Your task to perform on an android device: empty trash in the gmail app Image 0: 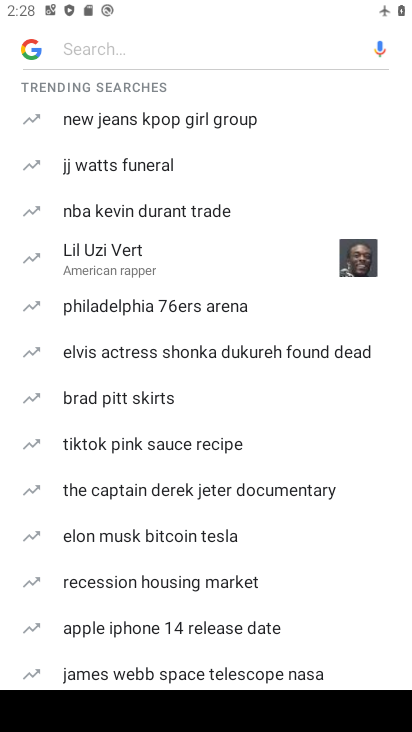
Step 0: press back button
Your task to perform on an android device: empty trash in the gmail app Image 1: 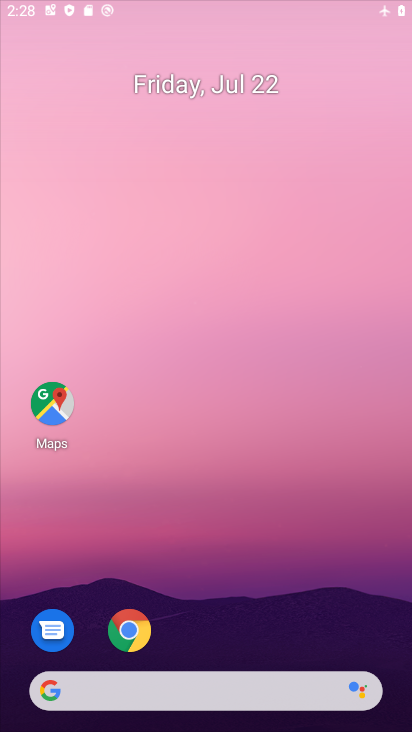
Step 1: drag from (205, 666) to (114, 38)
Your task to perform on an android device: empty trash in the gmail app Image 2: 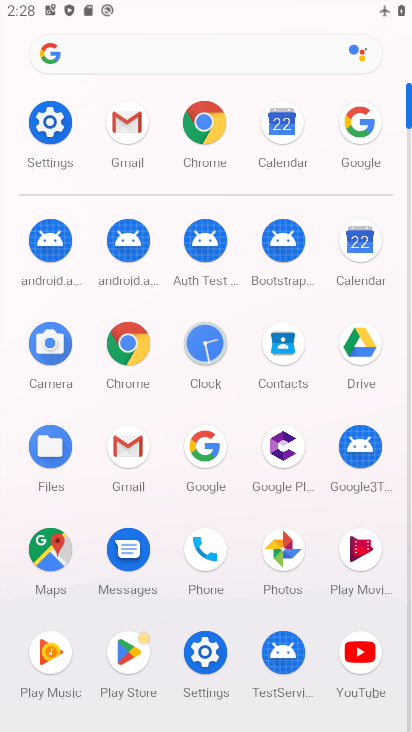
Step 2: click (141, 459)
Your task to perform on an android device: empty trash in the gmail app Image 3: 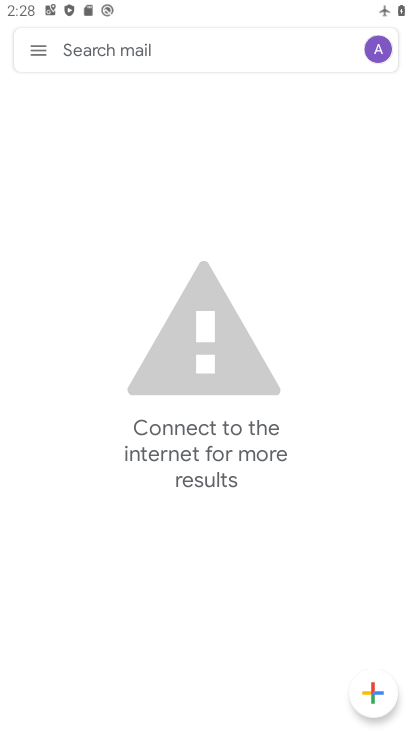
Step 3: click (34, 52)
Your task to perform on an android device: empty trash in the gmail app Image 4: 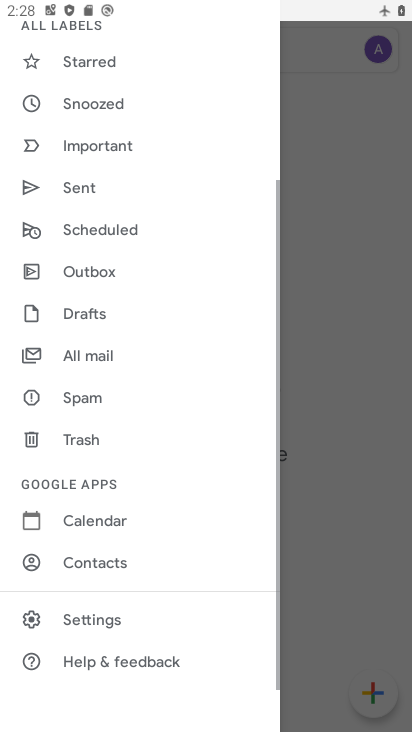
Step 4: click (81, 430)
Your task to perform on an android device: empty trash in the gmail app Image 5: 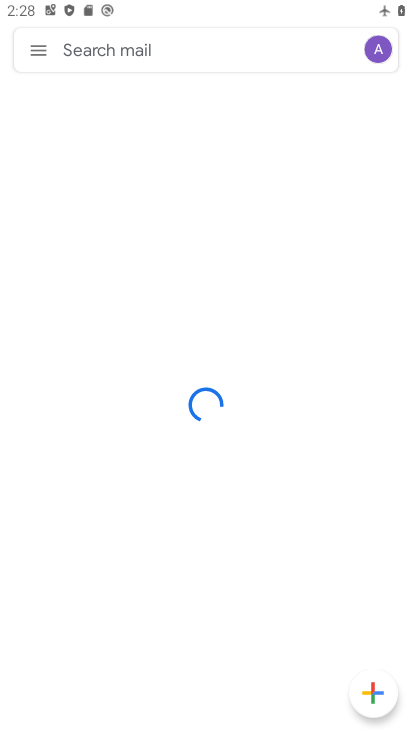
Step 5: task complete